Your task to perform on an android device: open app "YouTube Kids" Image 0: 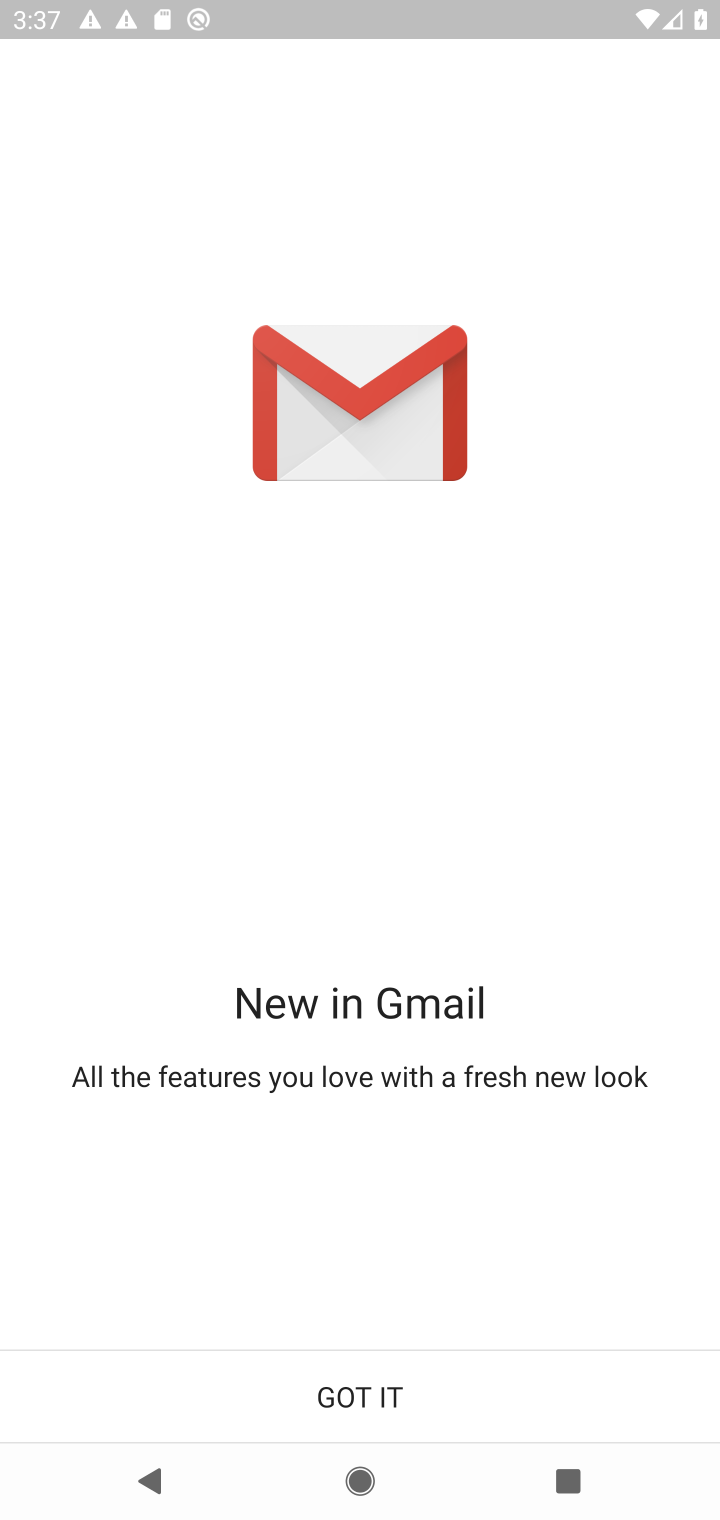
Step 0: press home button
Your task to perform on an android device: open app "YouTube Kids" Image 1: 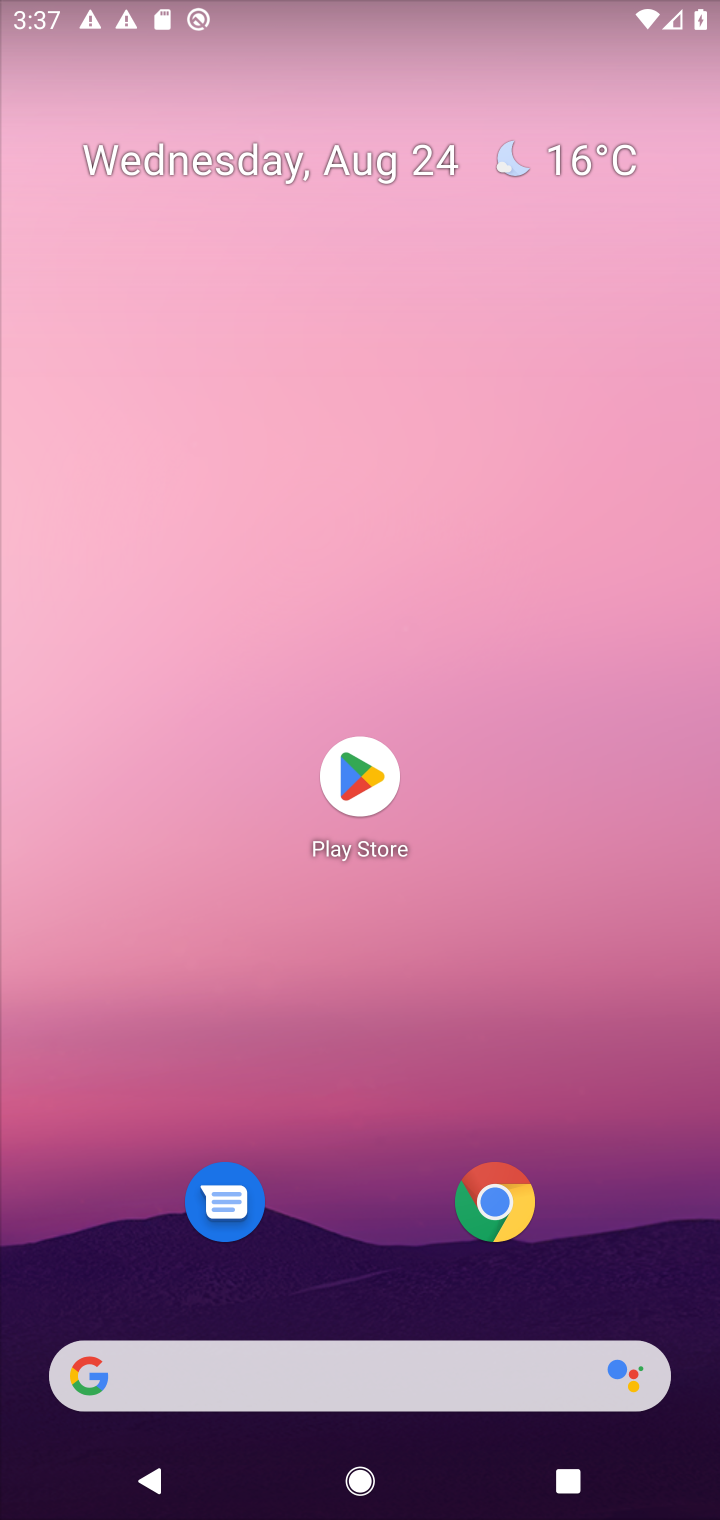
Step 1: click (379, 799)
Your task to perform on an android device: open app "YouTube Kids" Image 2: 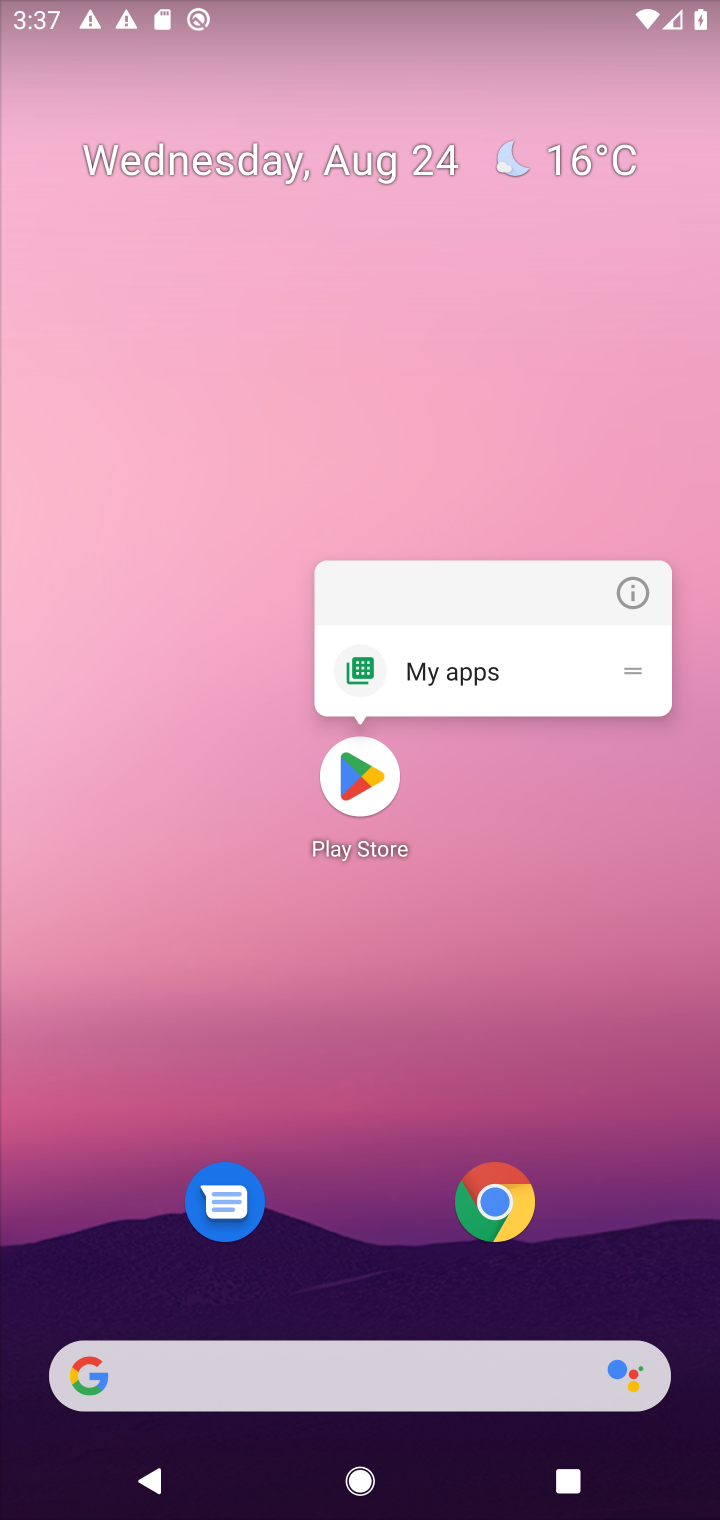
Step 2: click (375, 788)
Your task to perform on an android device: open app "YouTube Kids" Image 3: 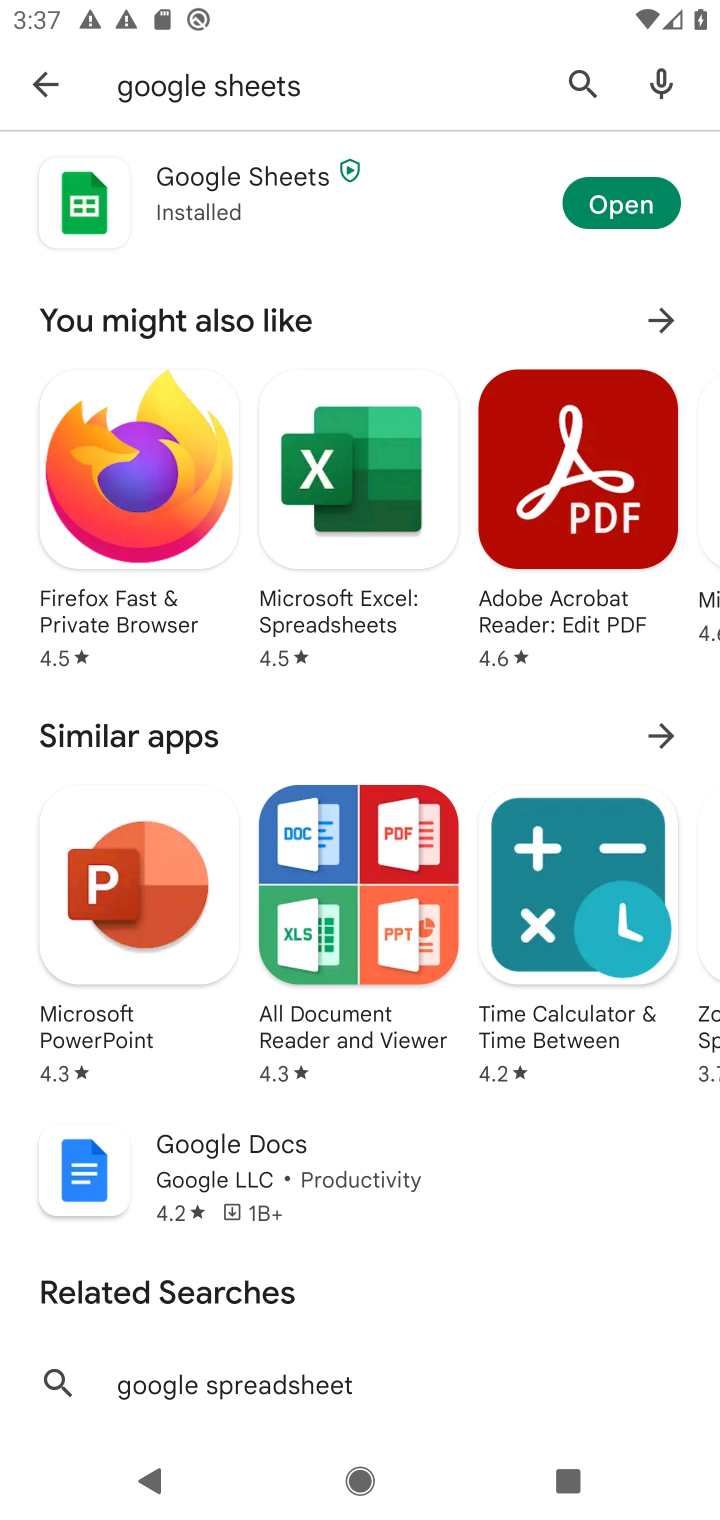
Step 3: click (588, 71)
Your task to perform on an android device: open app "YouTube Kids" Image 4: 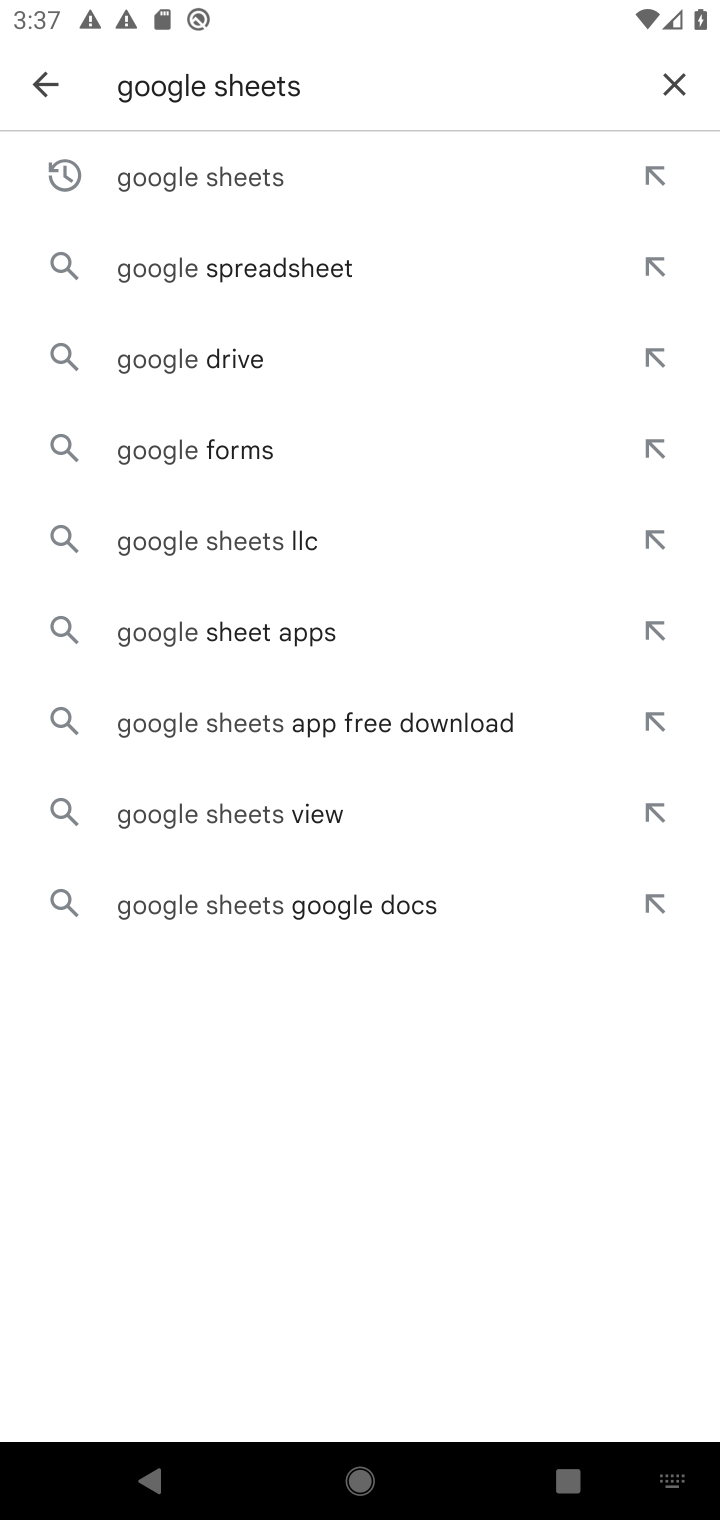
Step 4: click (680, 67)
Your task to perform on an android device: open app "YouTube Kids" Image 5: 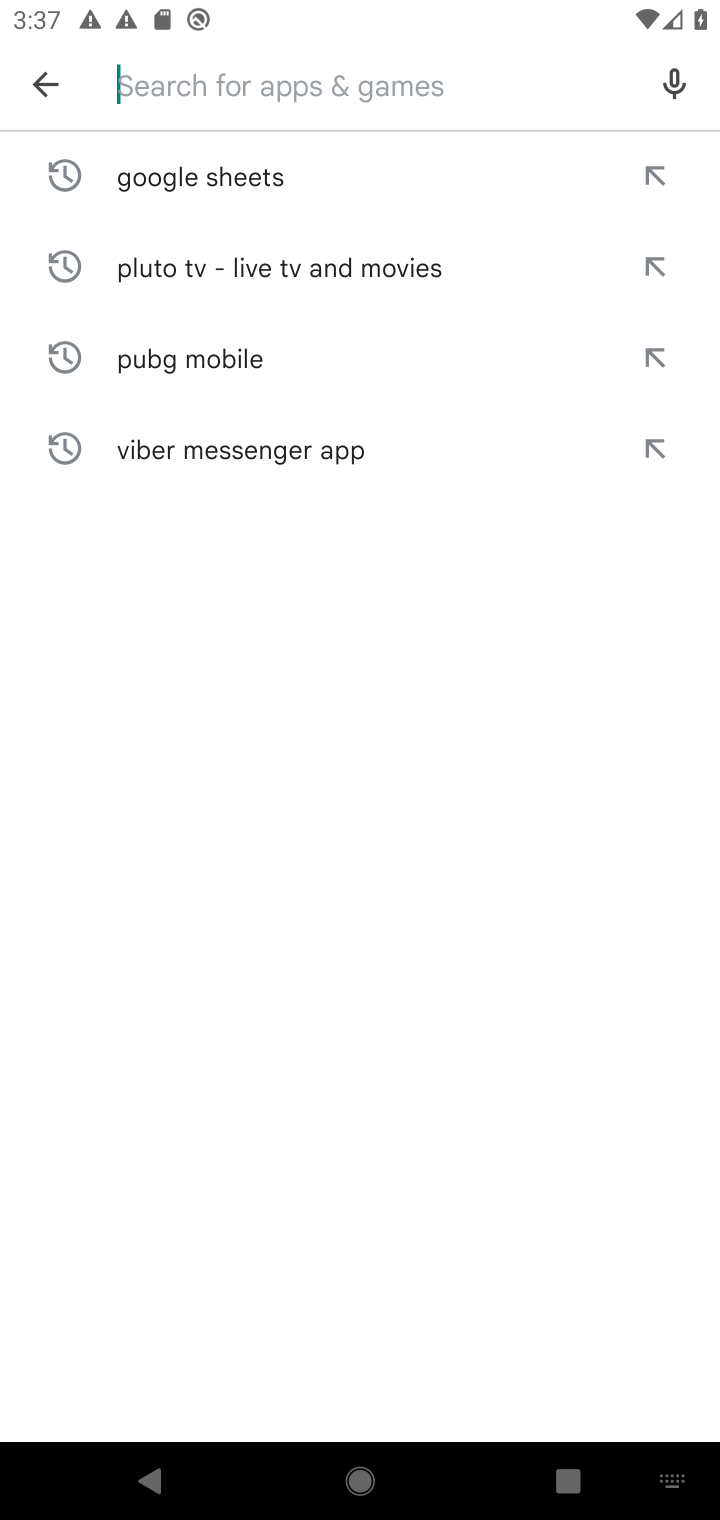
Step 5: type "YouTube Kids"
Your task to perform on an android device: open app "YouTube Kids" Image 6: 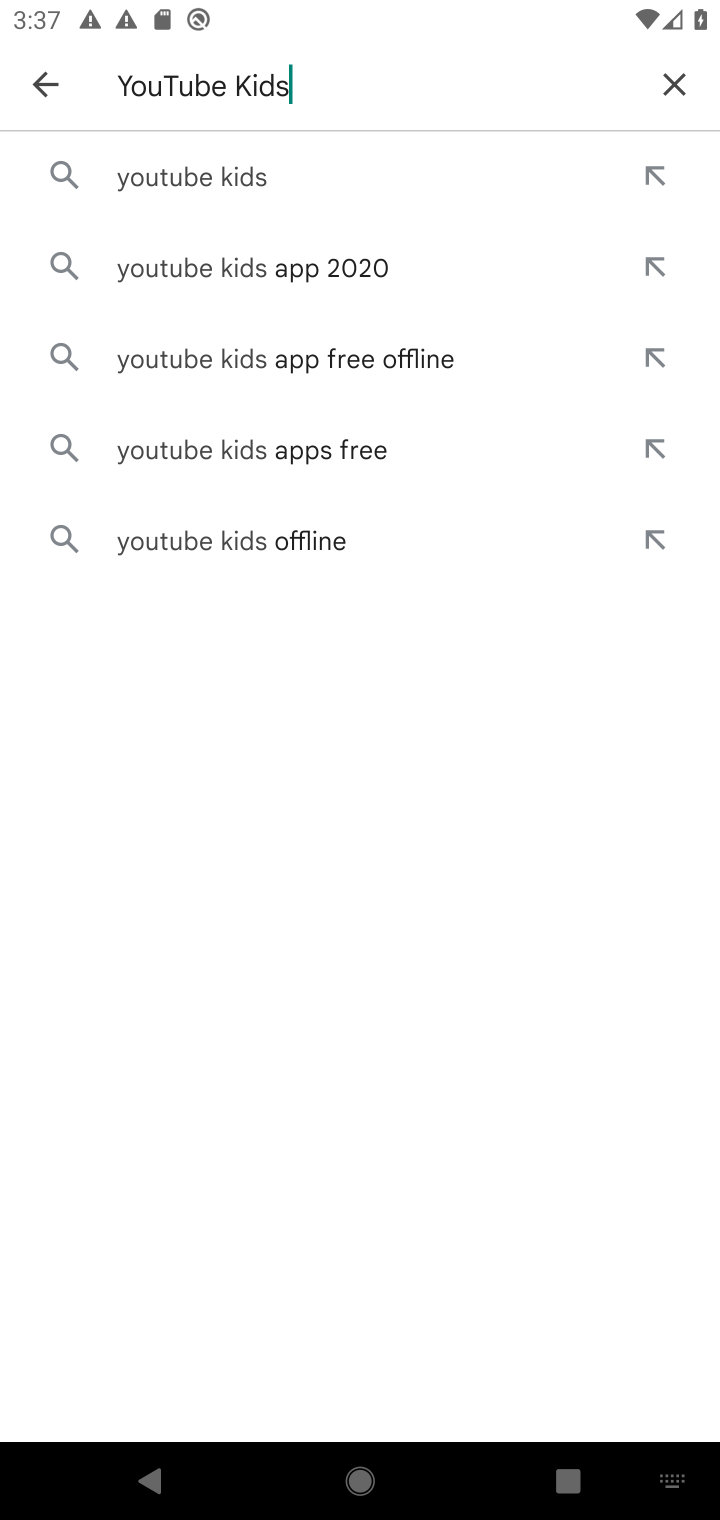
Step 6: click (237, 165)
Your task to perform on an android device: open app "YouTube Kids" Image 7: 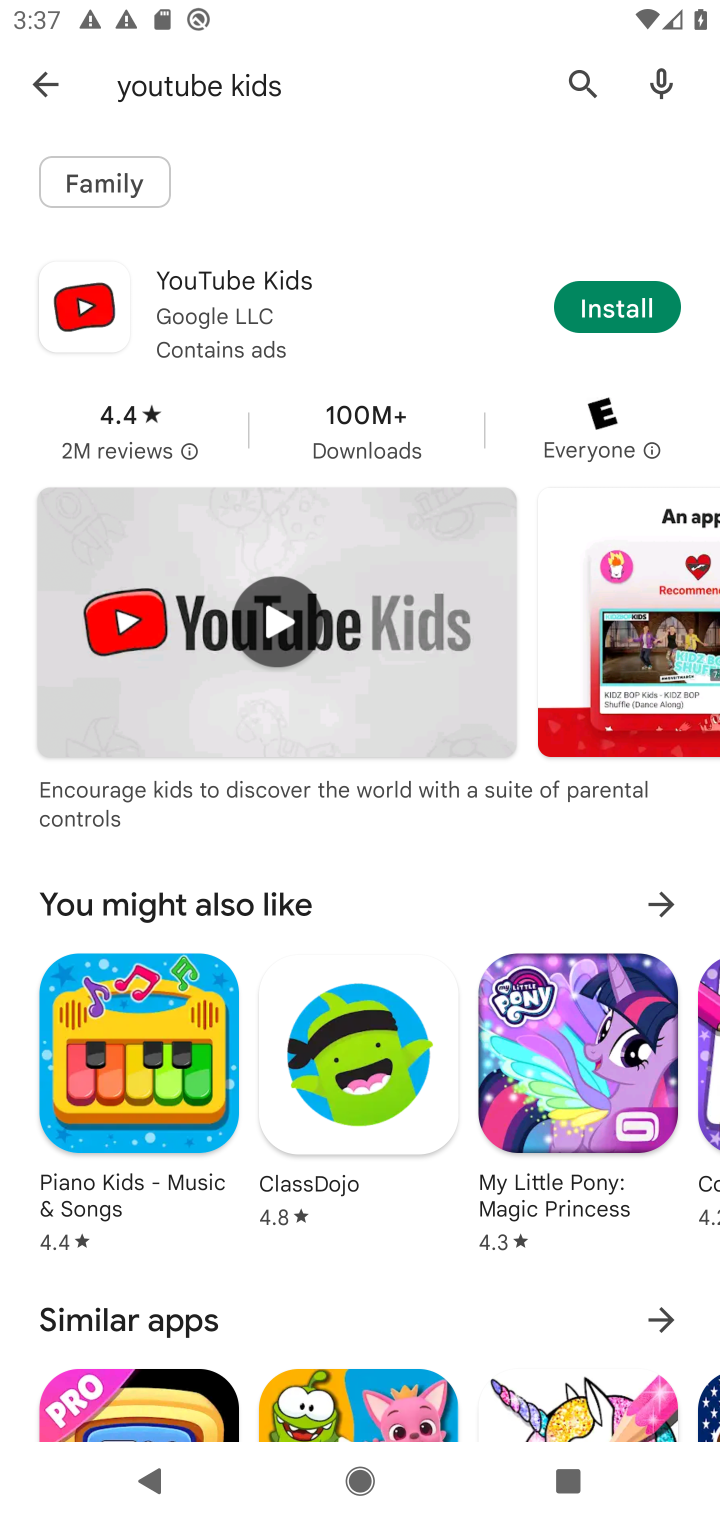
Step 7: task complete